Your task to perform on an android device: Open calendar and show me the second week of next month Image 0: 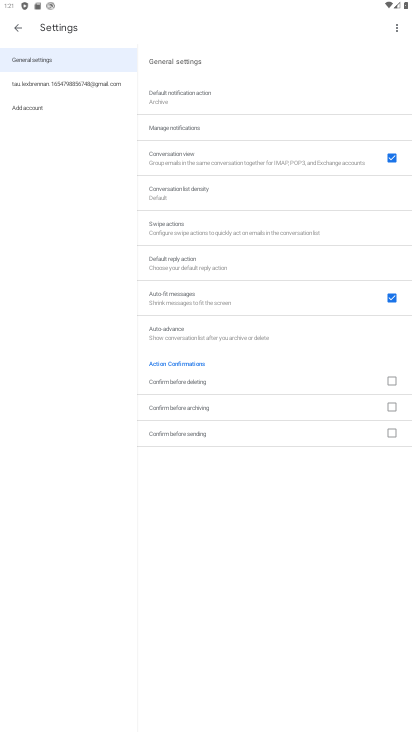
Step 0: press home button
Your task to perform on an android device: Open calendar and show me the second week of next month Image 1: 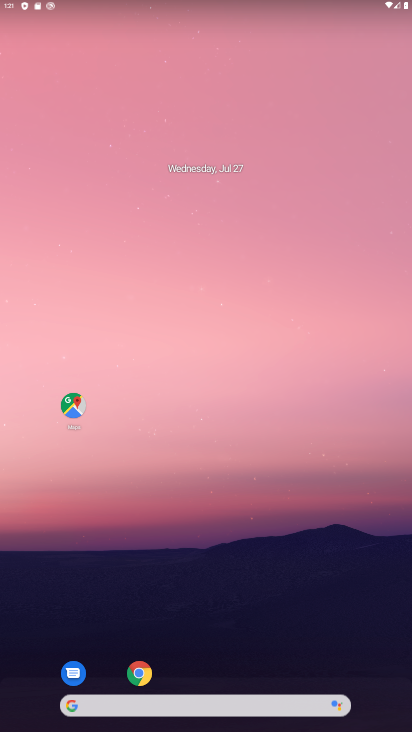
Step 1: drag from (228, 664) to (217, 126)
Your task to perform on an android device: Open calendar and show me the second week of next month Image 2: 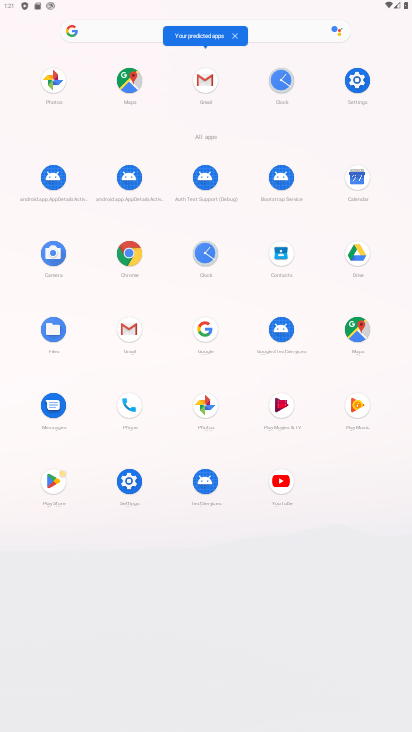
Step 2: click (354, 182)
Your task to perform on an android device: Open calendar and show me the second week of next month Image 3: 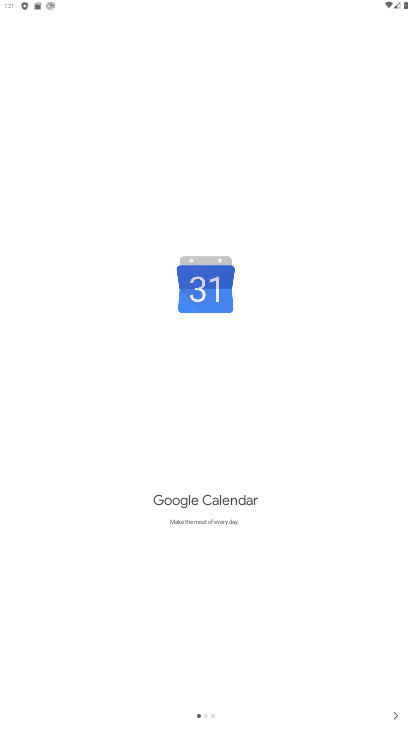
Step 3: click (397, 711)
Your task to perform on an android device: Open calendar and show me the second week of next month Image 4: 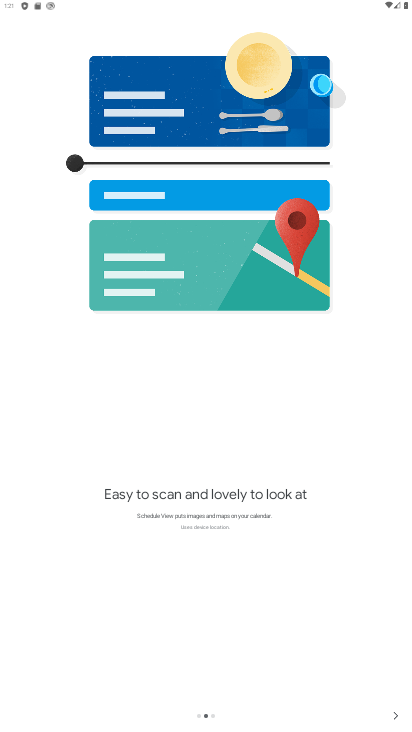
Step 4: click (397, 711)
Your task to perform on an android device: Open calendar and show me the second week of next month Image 5: 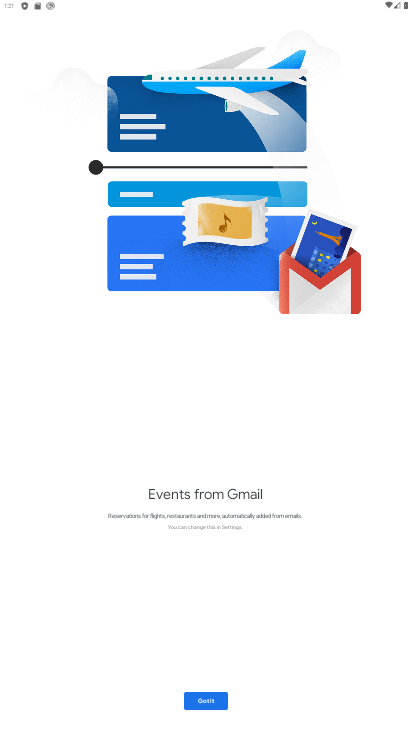
Step 5: click (197, 701)
Your task to perform on an android device: Open calendar and show me the second week of next month Image 6: 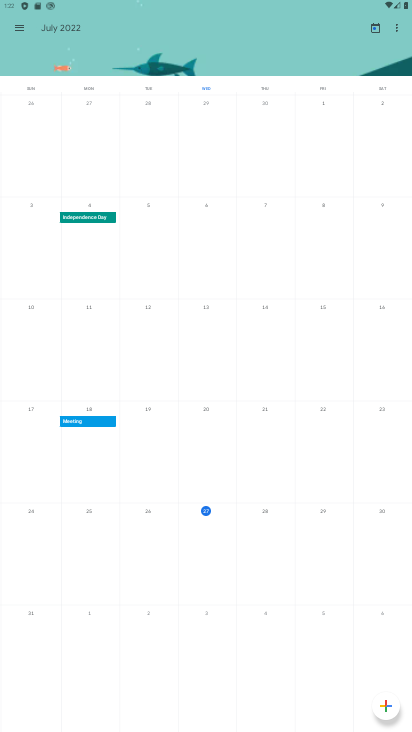
Step 6: drag from (369, 386) to (79, 271)
Your task to perform on an android device: Open calendar and show me the second week of next month Image 7: 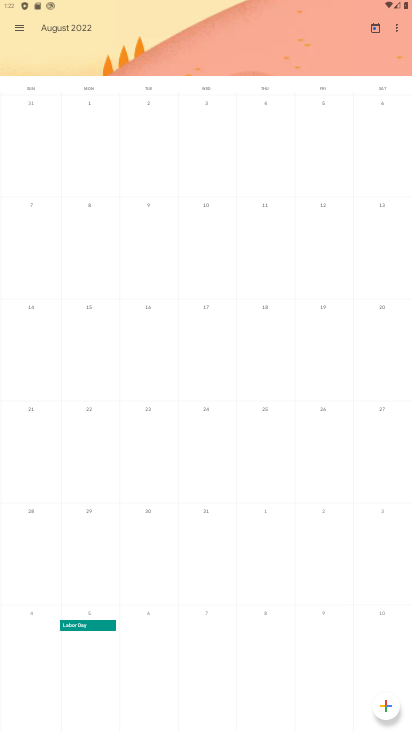
Step 7: click (44, 334)
Your task to perform on an android device: Open calendar and show me the second week of next month Image 8: 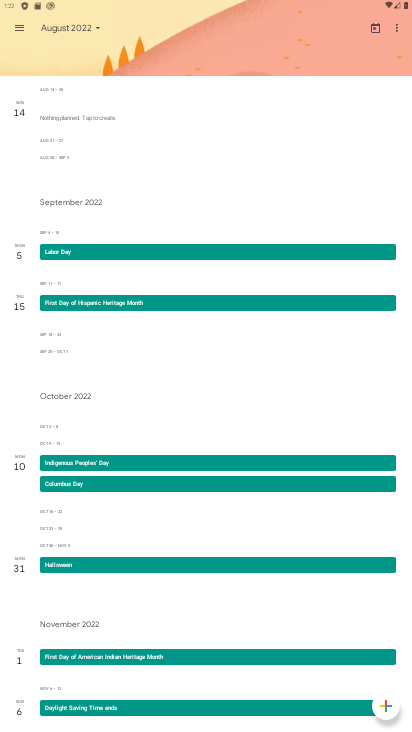
Step 8: task complete